Your task to perform on an android device: turn on location history Image 0: 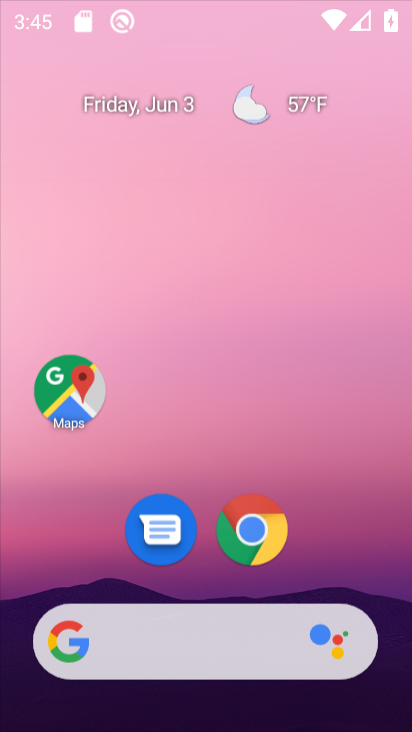
Step 0: press home button
Your task to perform on an android device: turn on location history Image 1: 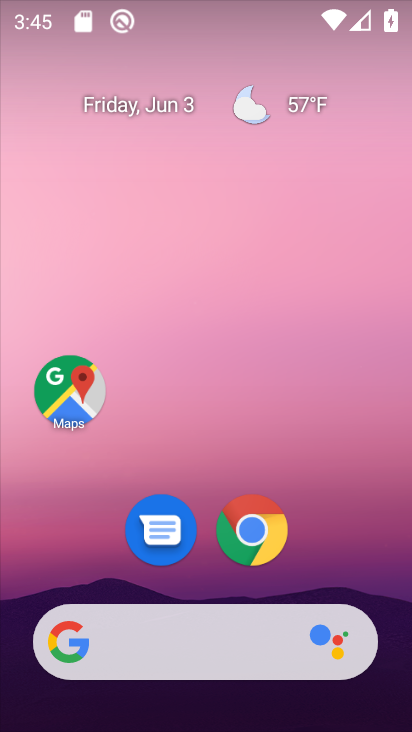
Step 1: press home button
Your task to perform on an android device: turn on location history Image 2: 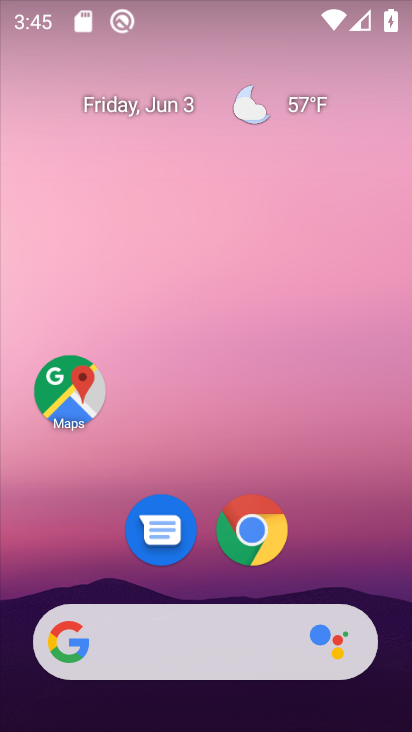
Step 2: drag from (205, 581) to (259, 61)
Your task to perform on an android device: turn on location history Image 3: 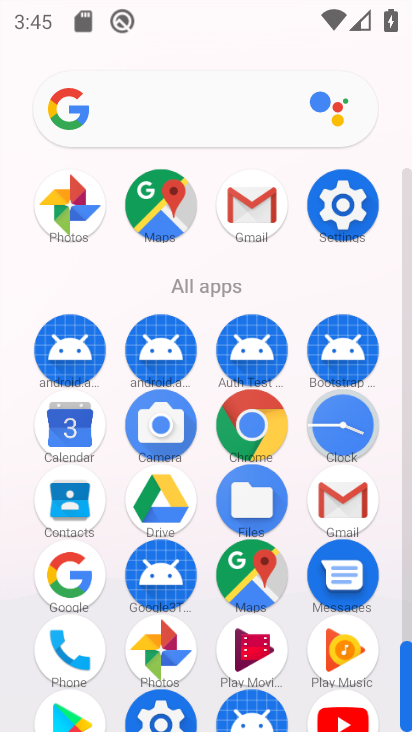
Step 3: click (343, 205)
Your task to perform on an android device: turn on location history Image 4: 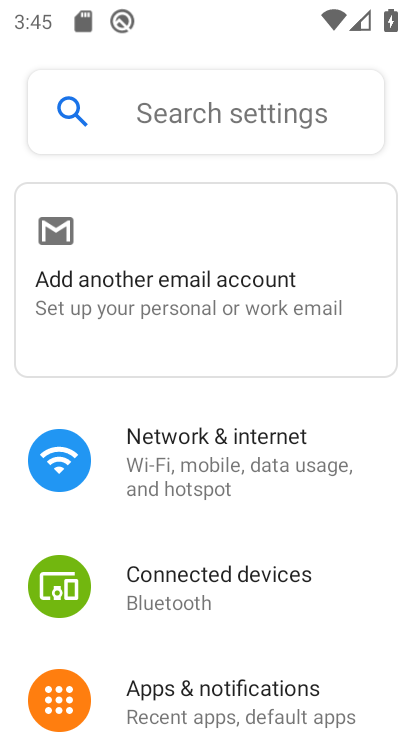
Step 4: drag from (242, 656) to (263, 116)
Your task to perform on an android device: turn on location history Image 5: 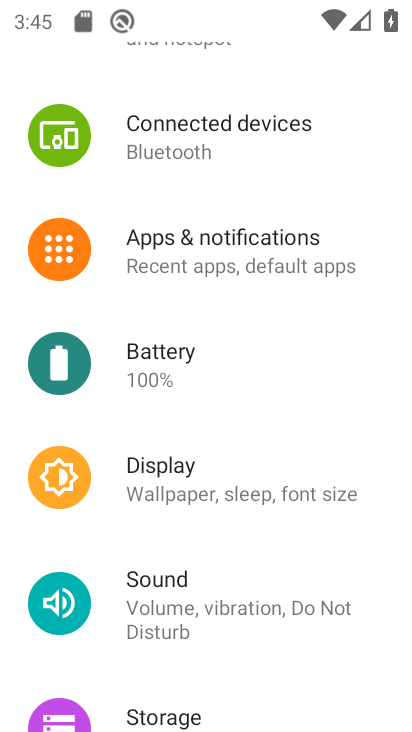
Step 5: drag from (206, 675) to (259, 186)
Your task to perform on an android device: turn on location history Image 6: 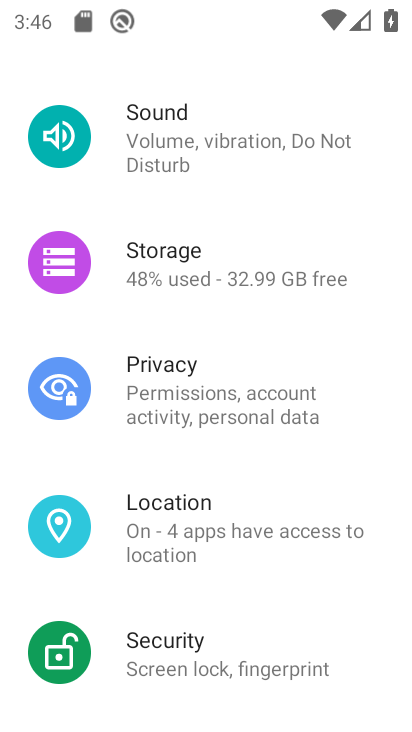
Step 6: drag from (226, 640) to (222, 258)
Your task to perform on an android device: turn on location history Image 7: 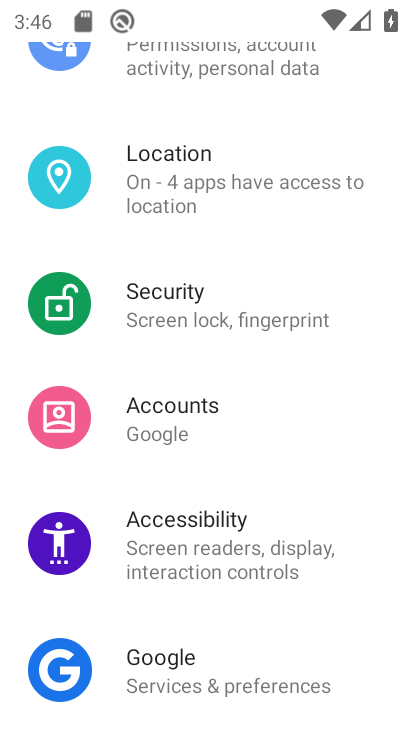
Step 7: click (209, 197)
Your task to perform on an android device: turn on location history Image 8: 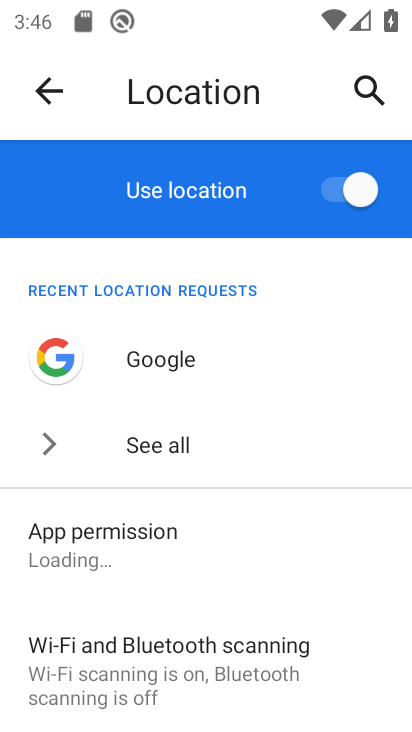
Step 8: drag from (229, 671) to (250, 102)
Your task to perform on an android device: turn on location history Image 9: 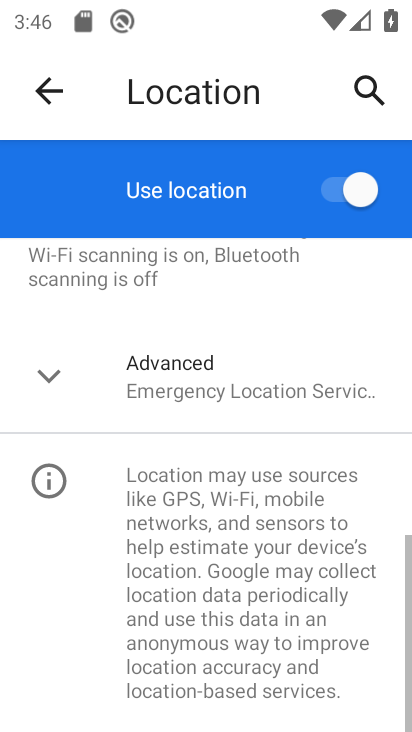
Step 9: click (44, 367)
Your task to perform on an android device: turn on location history Image 10: 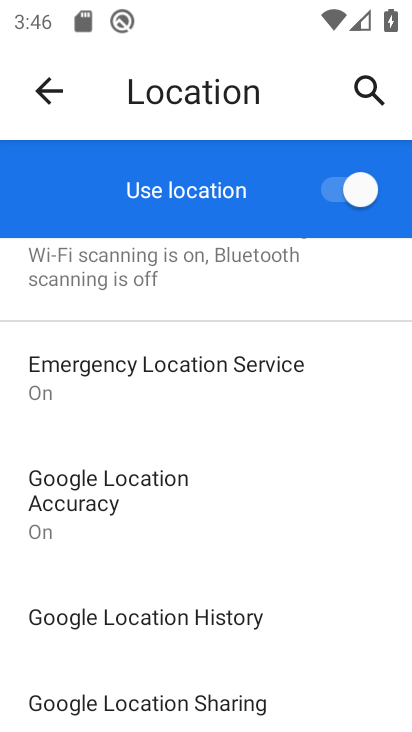
Step 10: click (281, 611)
Your task to perform on an android device: turn on location history Image 11: 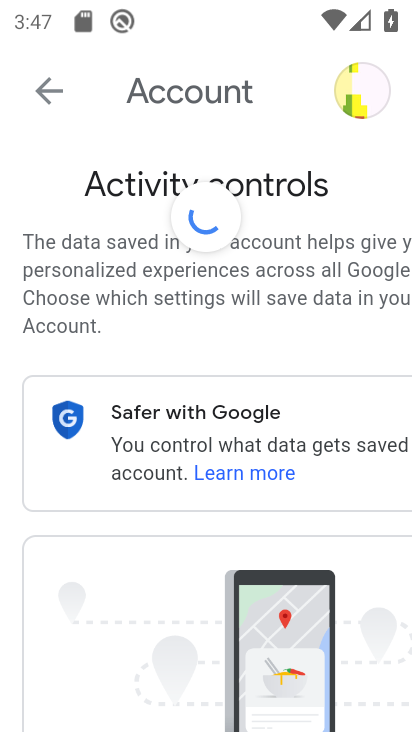
Step 11: task complete